Your task to perform on an android device: delete the emails in spam in the gmail app Image 0: 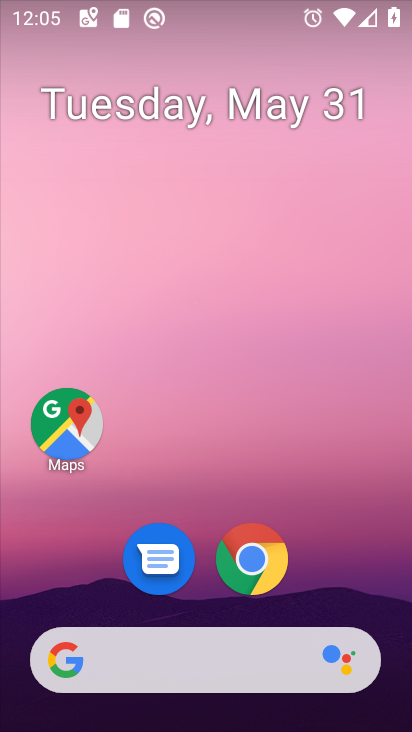
Step 0: drag from (389, 612) to (286, 133)
Your task to perform on an android device: delete the emails in spam in the gmail app Image 1: 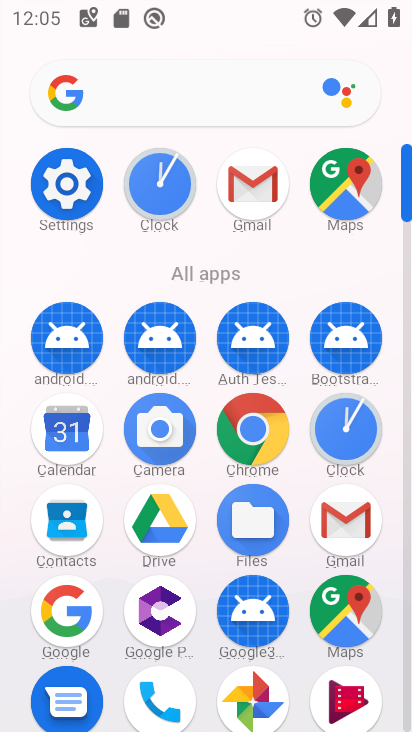
Step 1: click (252, 189)
Your task to perform on an android device: delete the emails in spam in the gmail app Image 2: 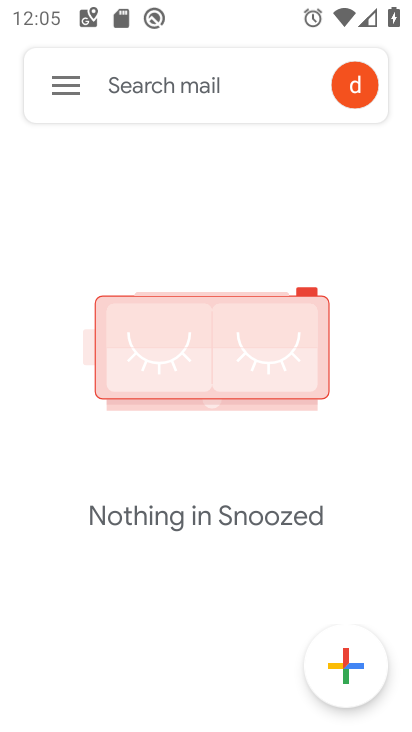
Step 2: click (71, 82)
Your task to perform on an android device: delete the emails in spam in the gmail app Image 3: 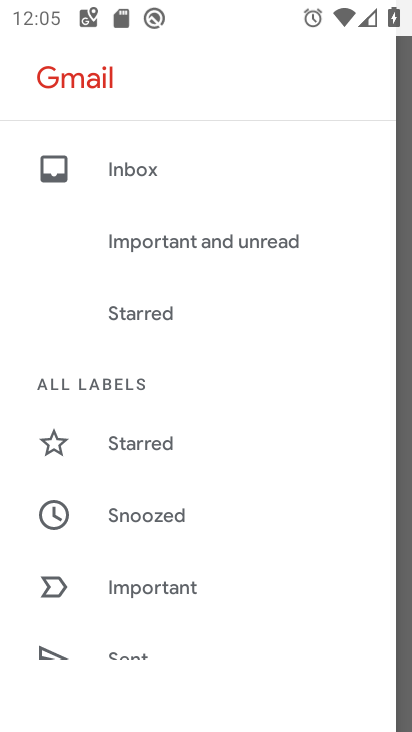
Step 3: click (144, 180)
Your task to perform on an android device: delete the emails in spam in the gmail app Image 4: 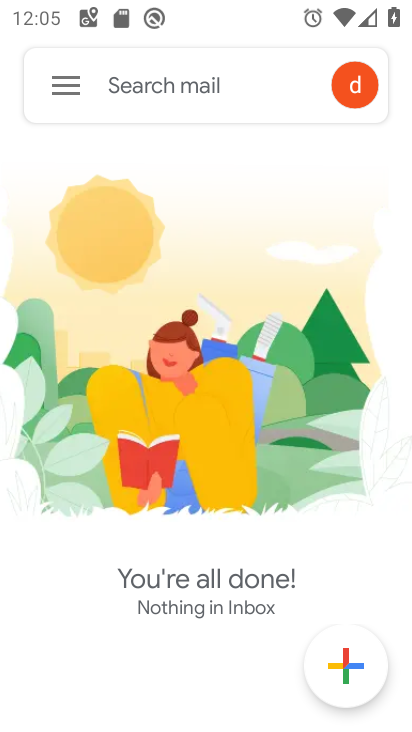
Step 4: click (68, 91)
Your task to perform on an android device: delete the emails in spam in the gmail app Image 5: 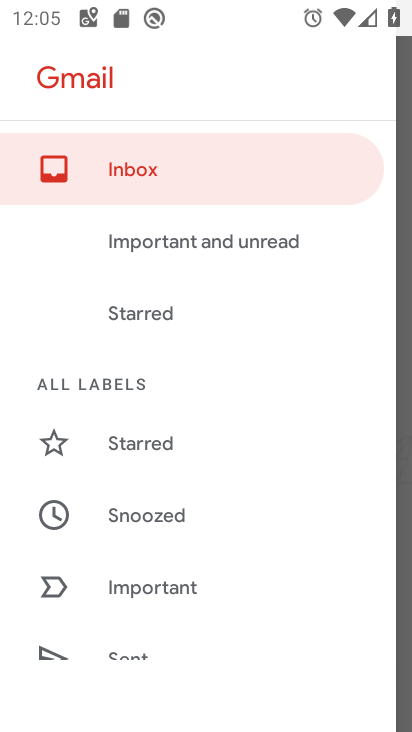
Step 5: drag from (210, 643) to (177, 289)
Your task to perform on an android device: delete the emails in spam in the gmail app Image 6: 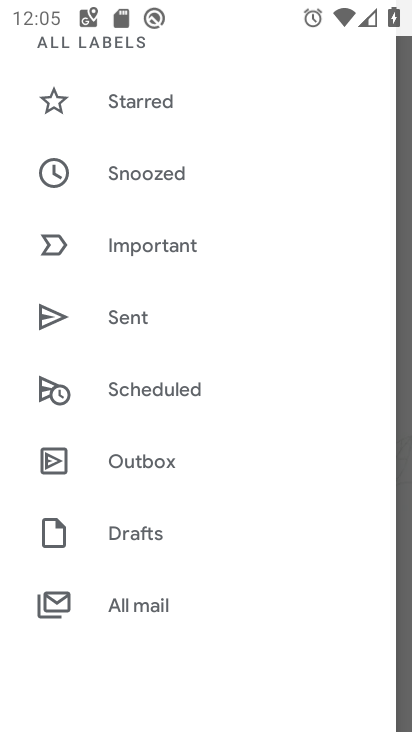
Step 6: drag from (239, 574) to (224, 223)
Your task to perform on an android device: delete the emails in spam in the gmail app Image 7: 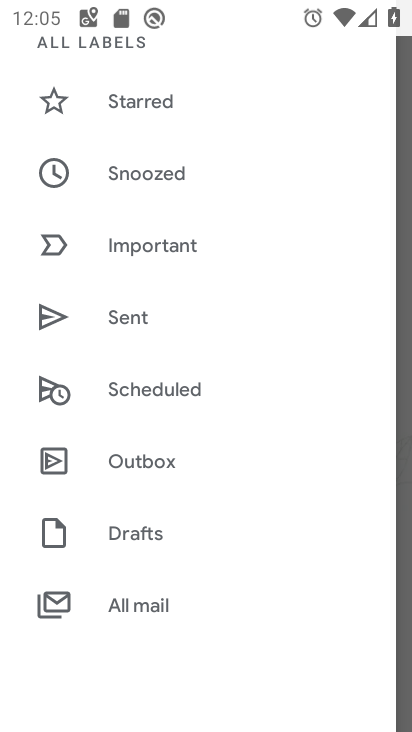
Step 7: drag from (173, 564) to (164, 270)
Your task to perform on an android device: delete the emails in spam in the gmail app Image 8: 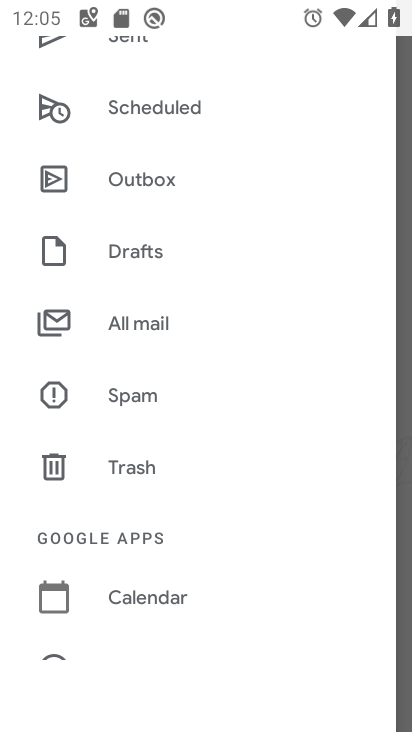
Step 8: click (131, 399)
Your task to perform on an android device: delete the emails in spam in the gmail app Image 9: 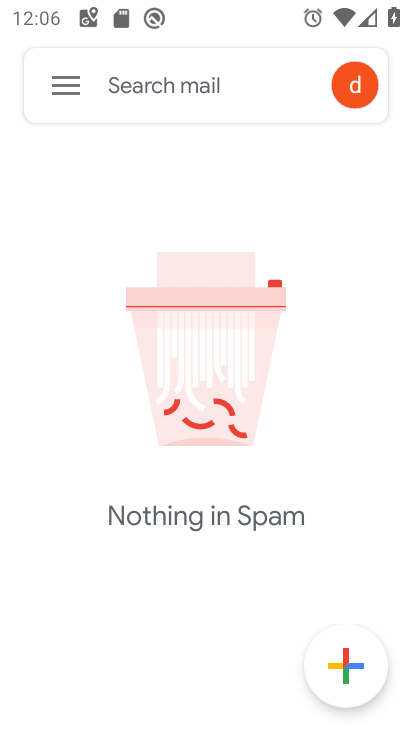
Step 9: task complete